Your task to perform on an android device: toggle pop-ups in chrome Image 0: 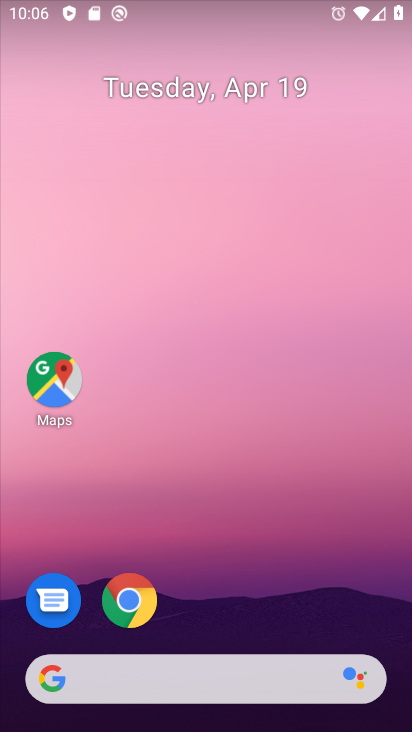
Step 0: click (133, 595)
Your task to perform on an android device: toggle pop-ups in chrome Image 1: 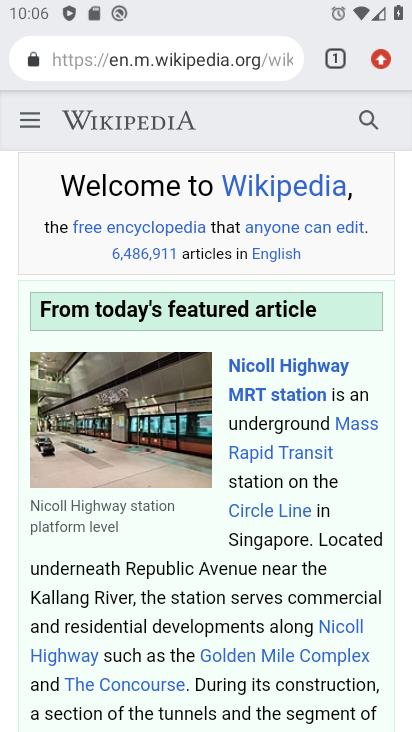
Step 1: click (383, 57)
Your task to perform on an android device: toggle pop-ups in chrome Image 2: 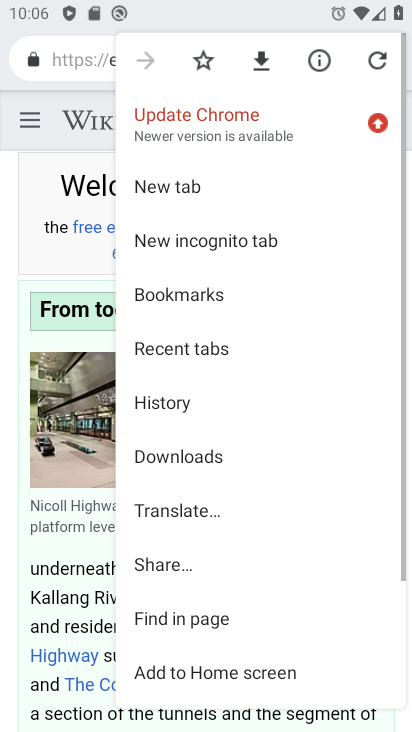
Step 2: drag from (195, 606) to (246, 281)
Your task to perform on an android device: toggle pop-ups in chrome Image 3: 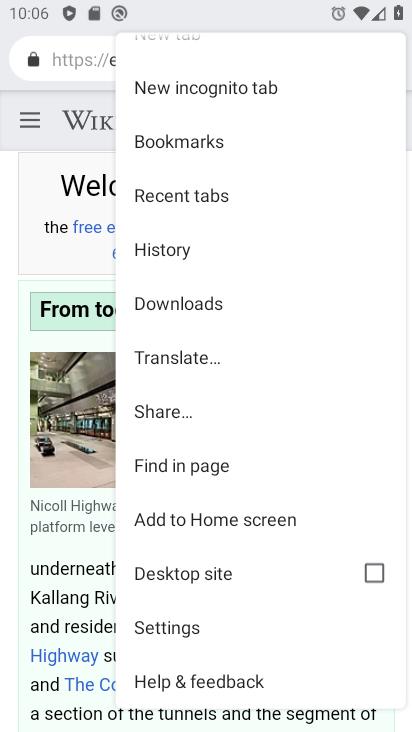
Step 3: click (184, 629)
Your task to perform on an android device: toggle pop-ups in chrome Image 4: 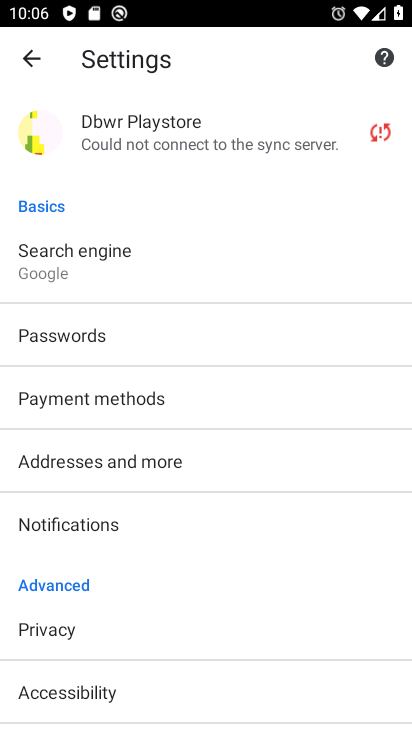
Step 4: drag from (109, 576) to (248, 152)
Your task to perform on an android device: toggle pop-ups in chrome Image 5: 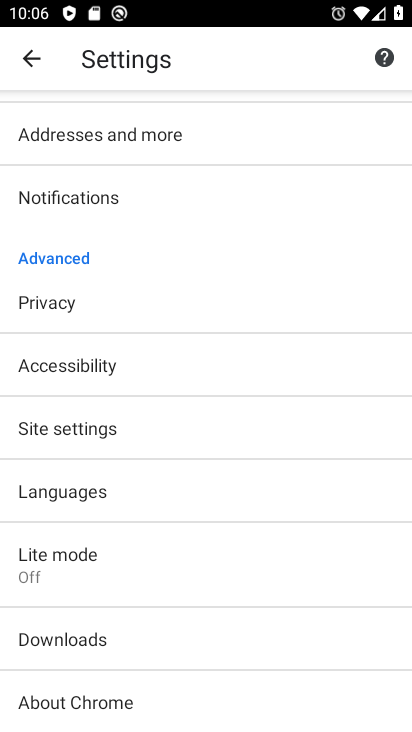
Step 5: click (73, 425)
Your task to perform on an android device: toggle pop-ups in chrome Image 6: 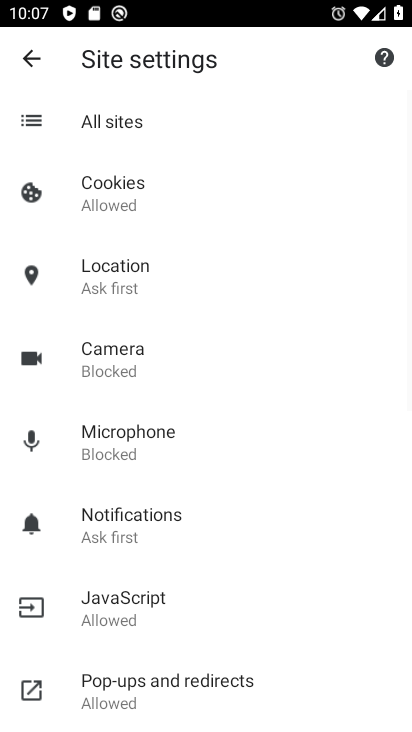
Step 6: drag from (126, 652) to (179, 396)
Your task to perform on an android device: toggle pop-ups in chrome Image 7: 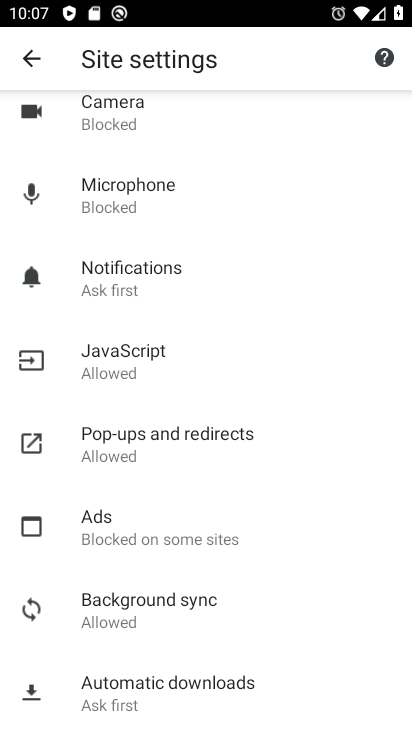
Step 7: click (123, 450)
Your task to perform on an android device: toggle pop-ups in chrome Image 8: 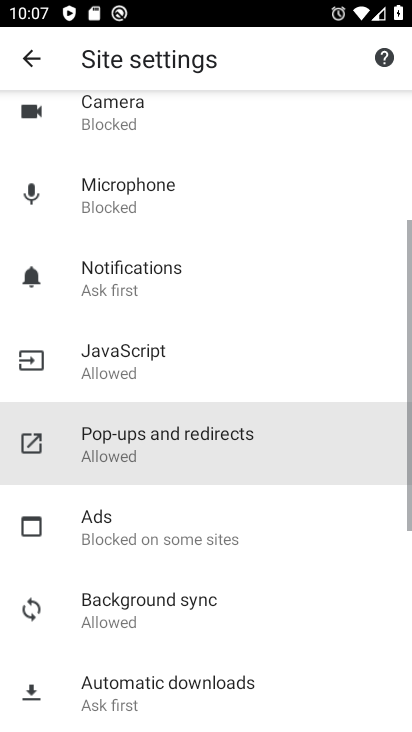
Step 8: click (135, 453)
Your task to perform on an android device: toggle pop-ups in chrome Image 9: 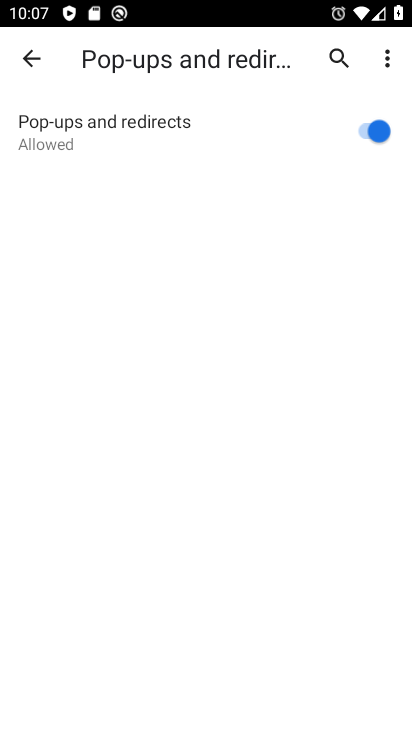
Step 9: click (358, 130)
Your task to perform on an android device: toggle pop-ups in chrome Image 10: 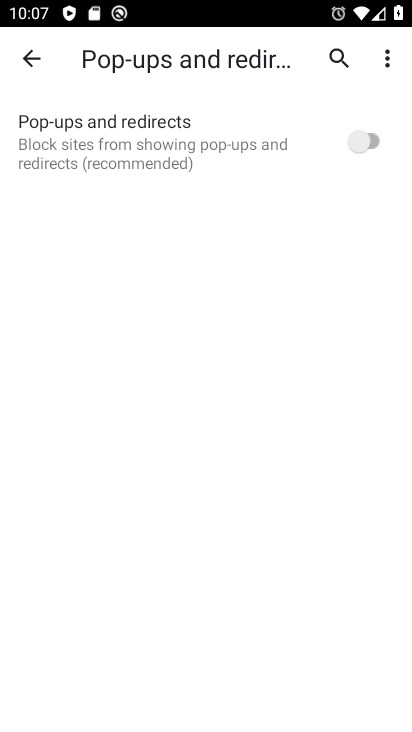
Step 10: task complete